Your task to perform on an android device: find photos in the google photos app Image 0: 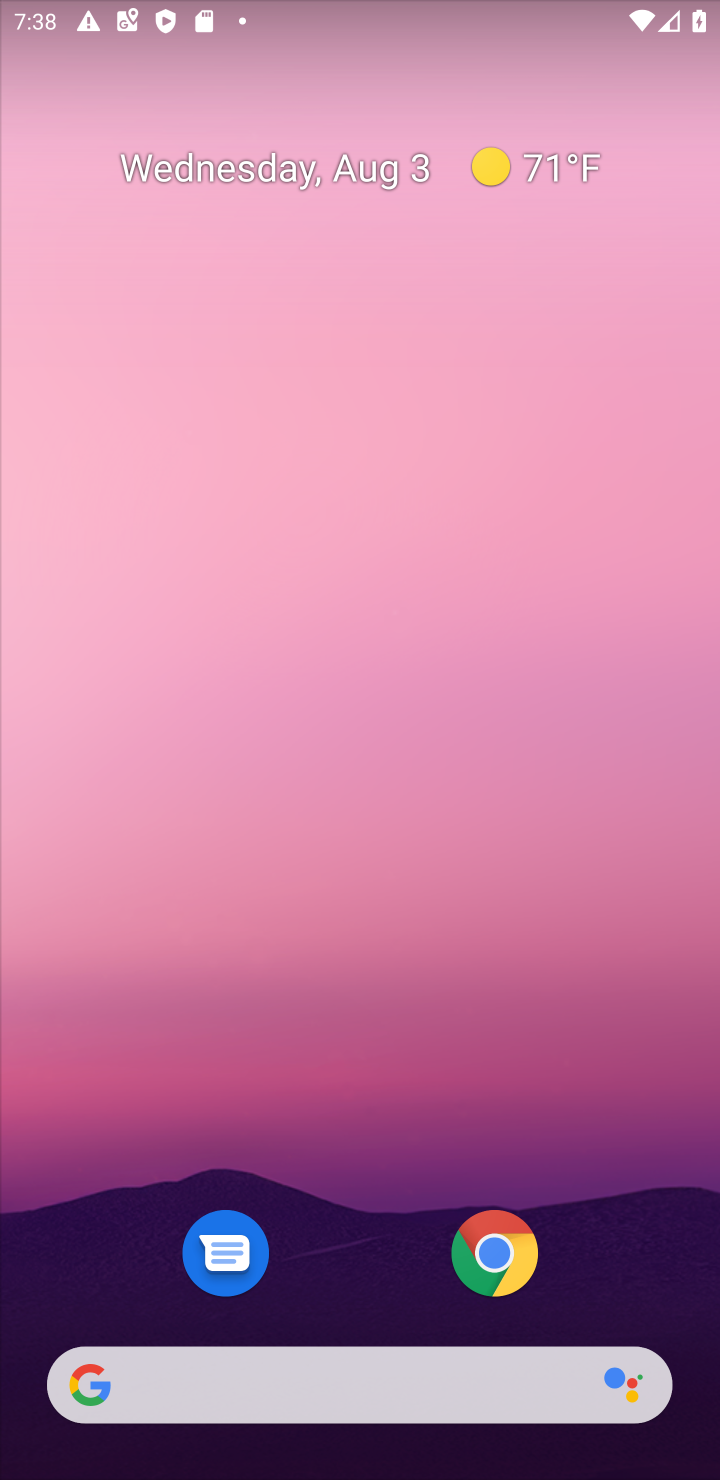
Step 0: drag from (339, 1202) to (400, 218)
Your task to perform on an android device: find photos in the google photos app Image 1: 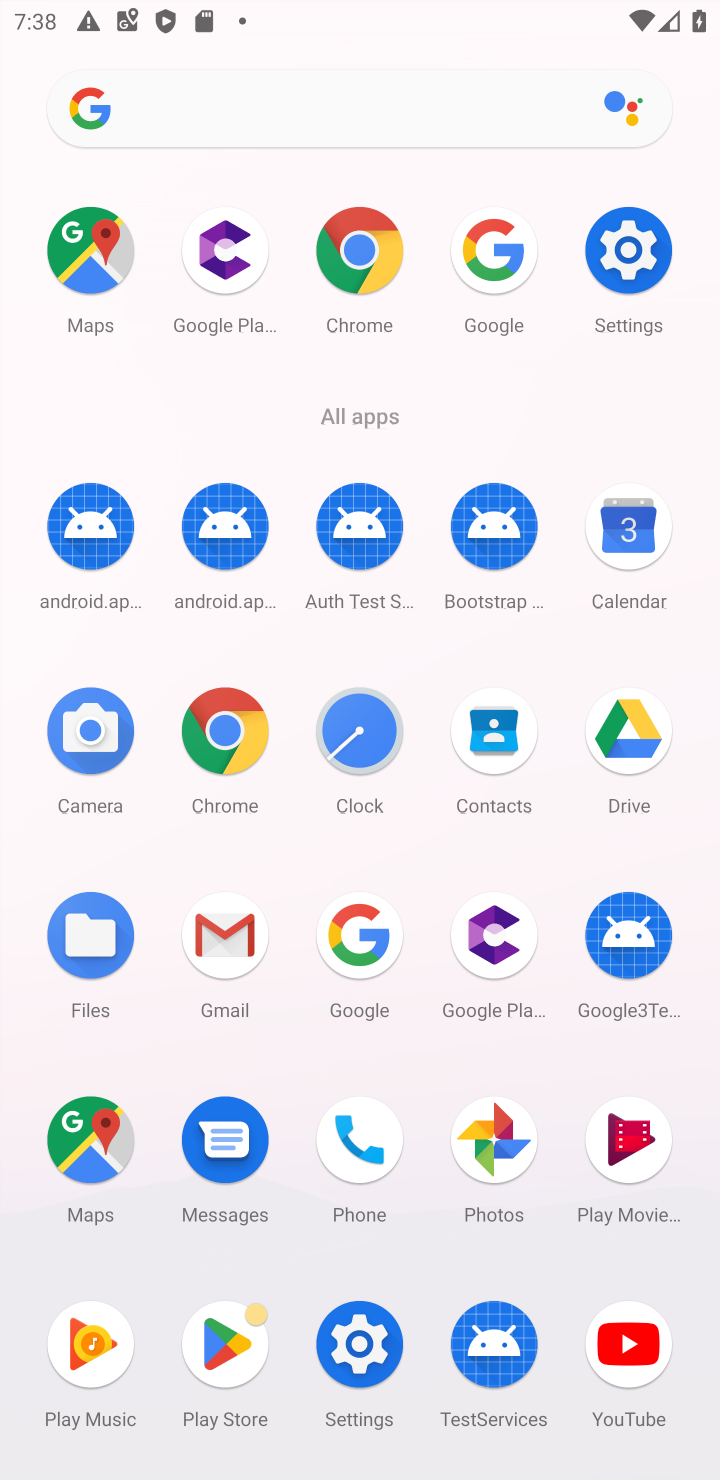
Step 1: click (504, 1170)
Your task to perform on an android device: find photos in the google photos app Image 2: 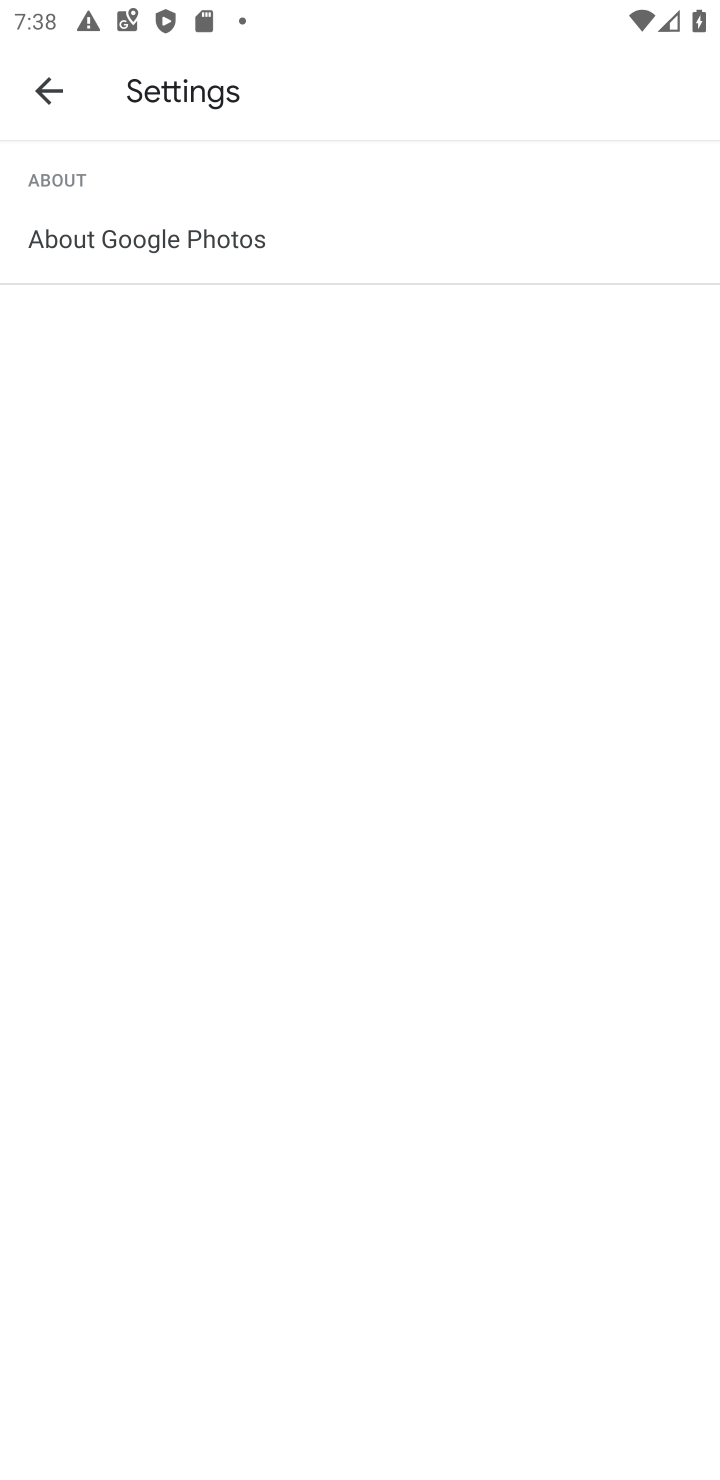
Step 2: press back button
Your task to perform on an android device: find photos in the google photos app Image 3: 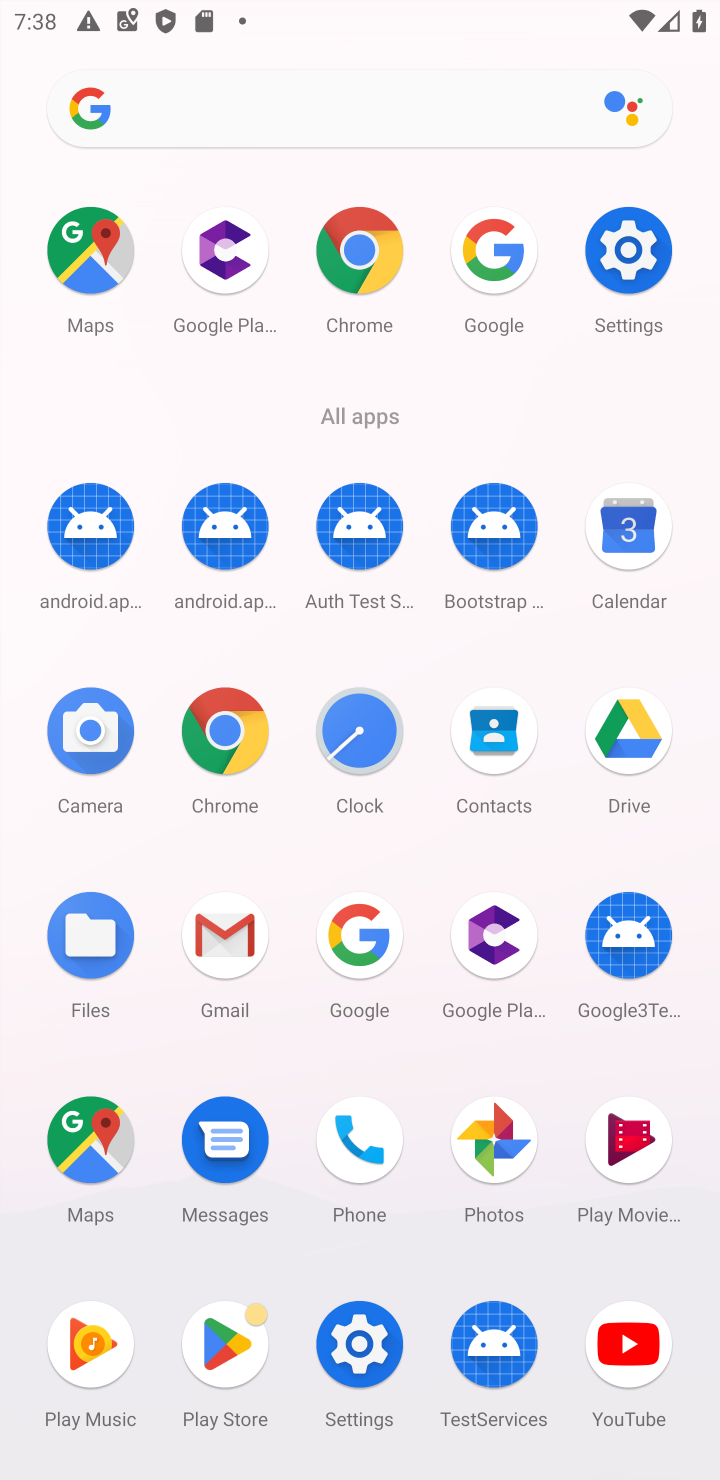
Step 3: click (505, 1132)
Your task to perform on an android device: find photos in the google photos app Image 4: 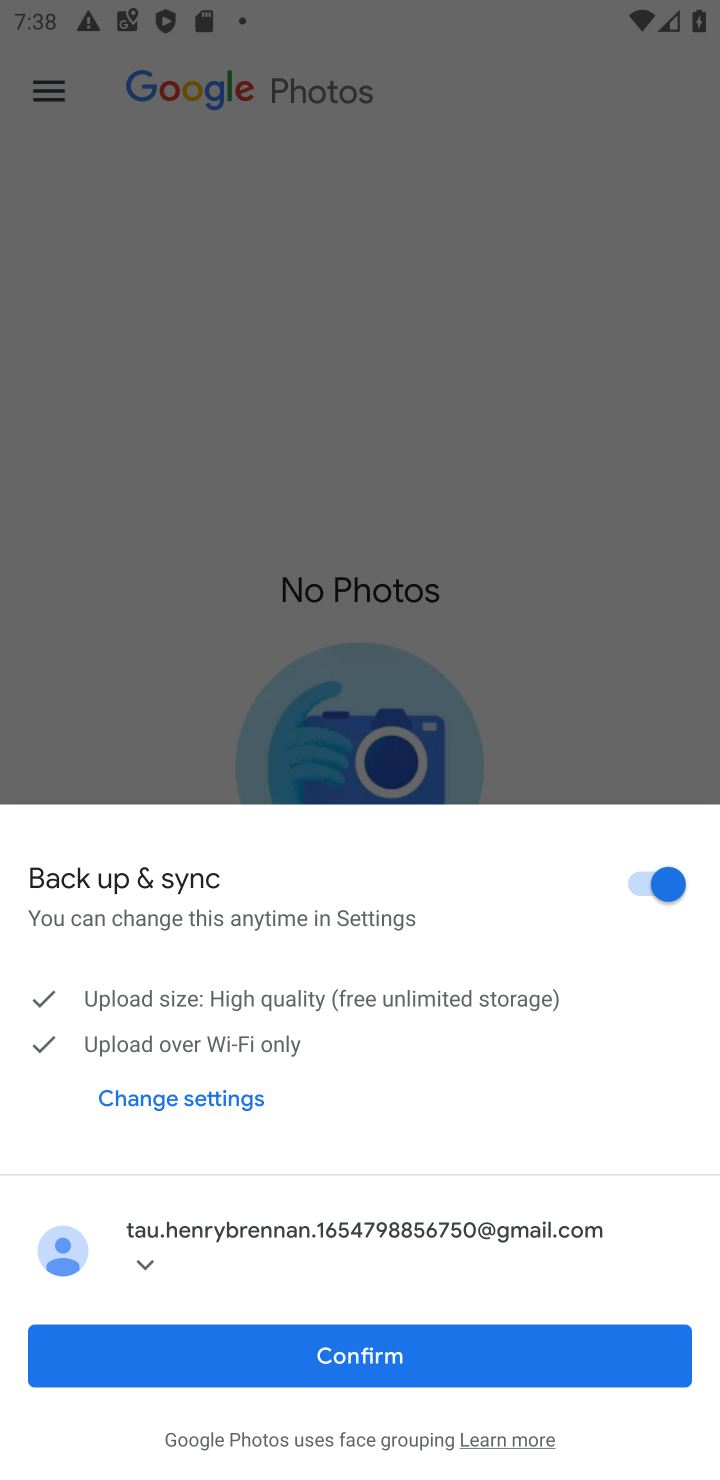
Step 4: click (331, 1356)
Your task to perform on an android device: find photos in the google photos app Image 5: 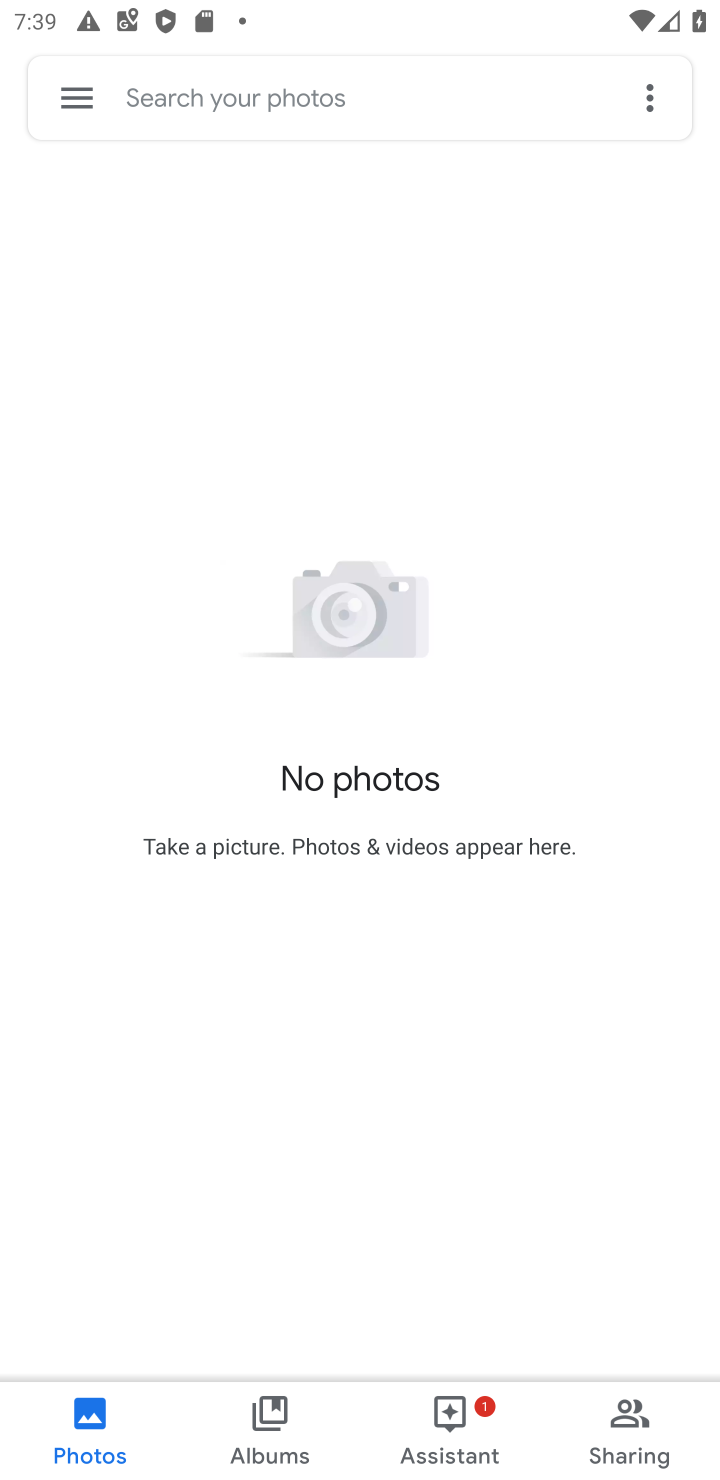
Step 5: task complete